Your task to perform on an android device: Open privacy settings Image 0: 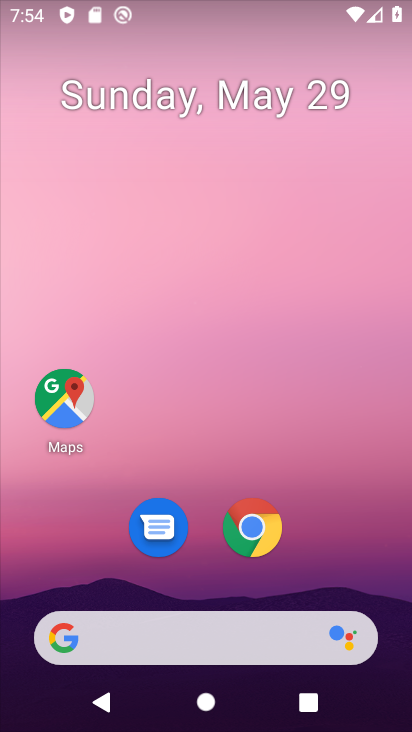
Step 0: press home button
Your task to perform on an android device: Open privacy settings Image 1: 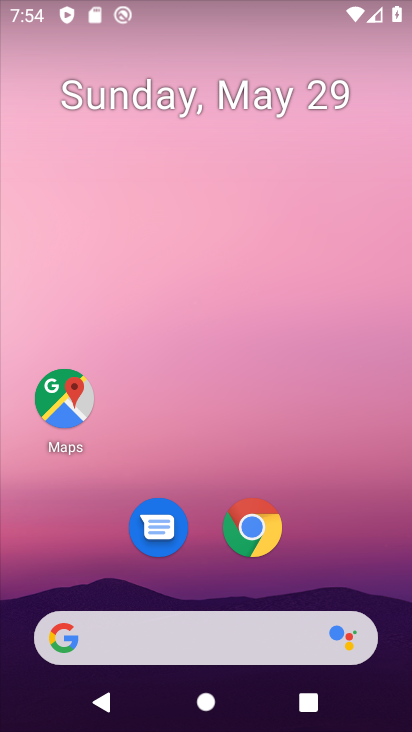
Step 1: drag from (213, 577) to (242, 47)
Your task to perform on an android device: Open privacy settings Image 2: 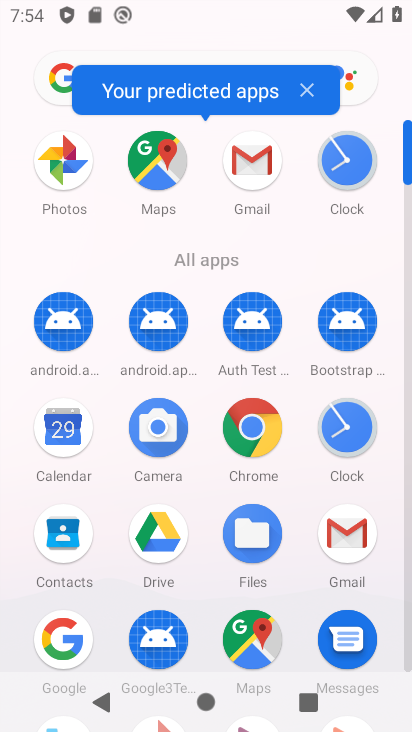
Step 2: drag from (203, 525) to (199, 104)
Your task to perform on an android device: Open privacy settings Image 3: 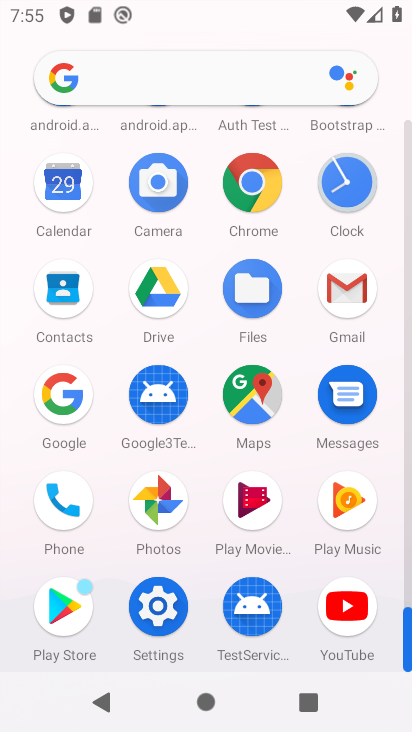
Step 3: click (156, 602)
Your task to perform on an android device: Open privacy settings Image 4: 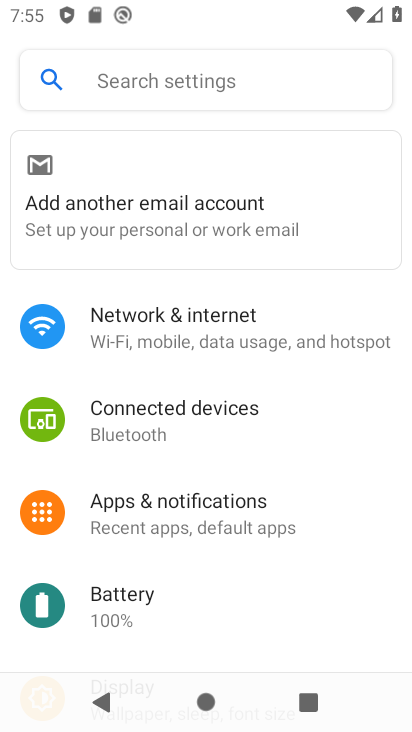
Step 4: drag from (176, 516) to (180, 43)
Your task to perform on an android device: Open privacy settings Image 5: 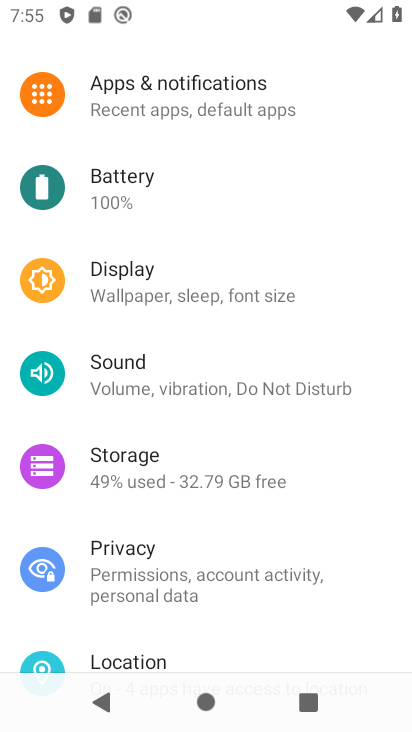
Step 5: click (166, 560)
Your task to perform on an android device: Open privacy settings Image 6: 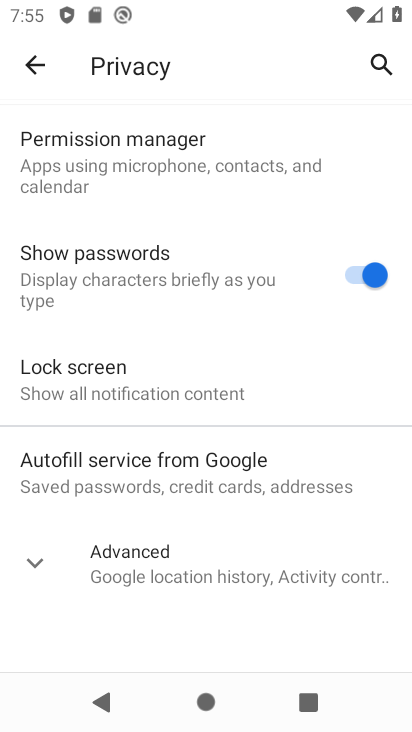
Step 6: click (34, 554)
Your task to perform on an android device: Open privacy settings Image 7: 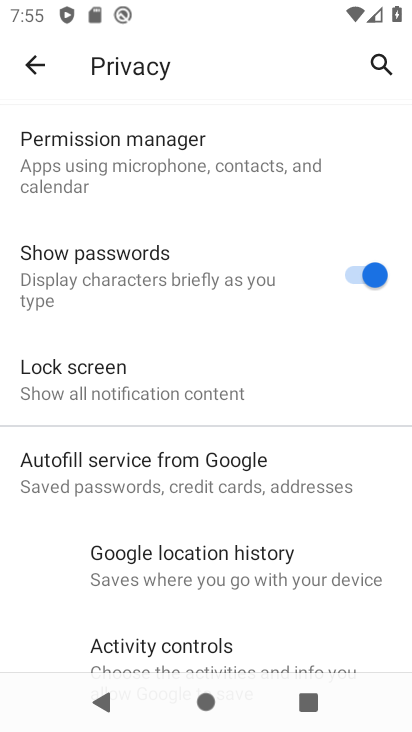
Step 7: task complete